Your task to perform on an android device: Open calendar and show me the third week of next month Image 0: 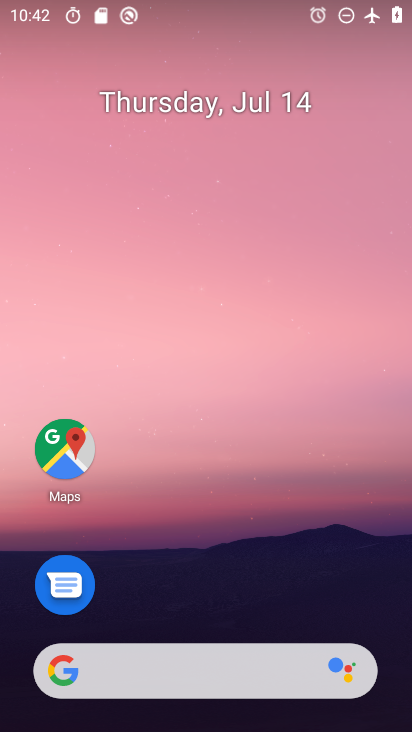
Step 0: drag from (284, 618) to (71, 164)
Your task to perform on an android device: Open calendar and show me the third week of next month Image 1: 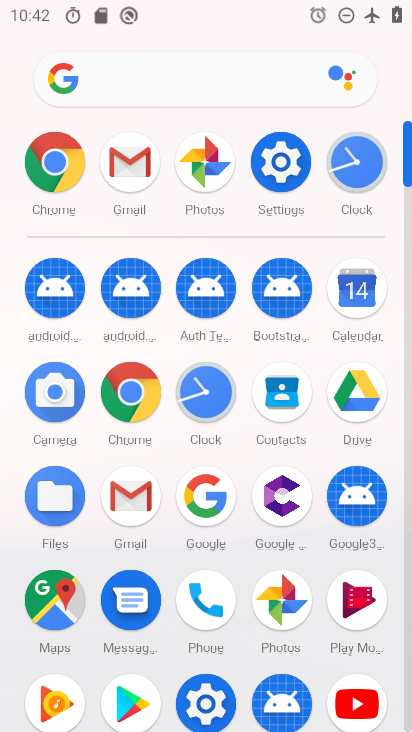
Step 1: click (370, 288)
Your task to perform on an android device: Open calendar and show me the third week of next month Image 2: 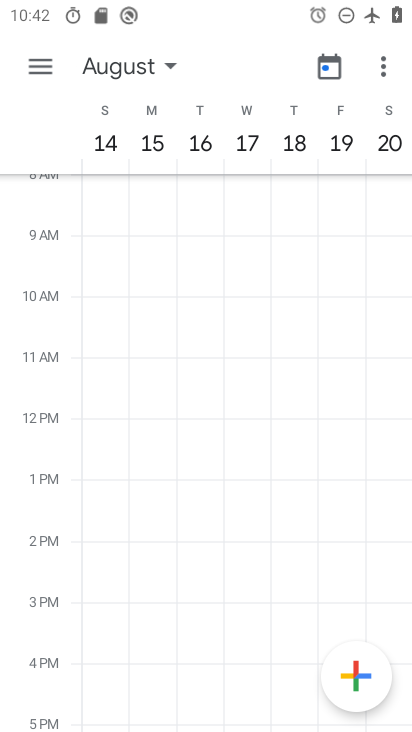
Step 2: task complete